Your task to perform on an android device: set default search engine in the chrome app Image 0: 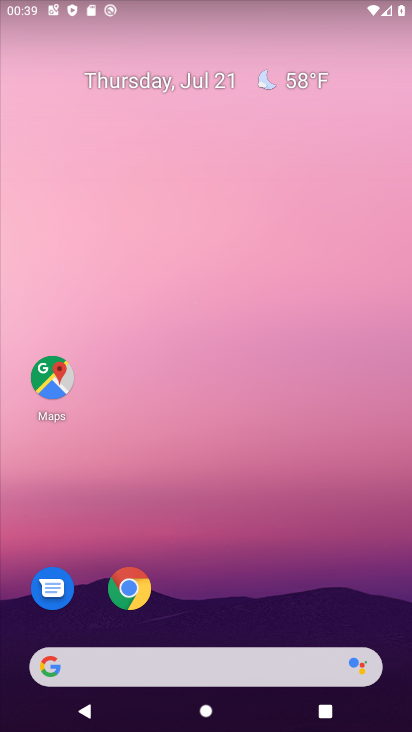
Step 0: drag from (190, 637) to (216, 0)
Your task to perform on an android device: set default search engine in the chrome app Image 1: 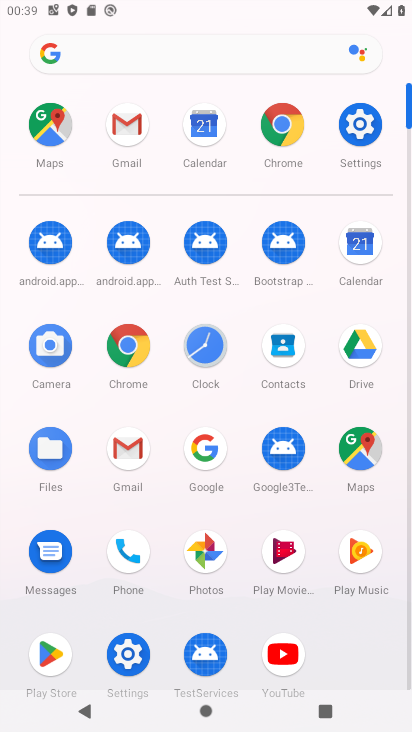
Step 1: click (130, 343)
Your task to perform on an android device: set default search engine in the chrome app Image 2: 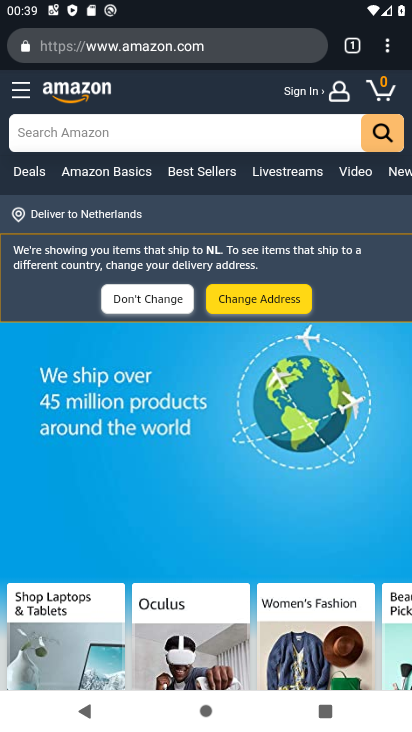
Step 2: click (385, 44)
Your task to perform on an android device: set default search engine in the chrome app Image 3: 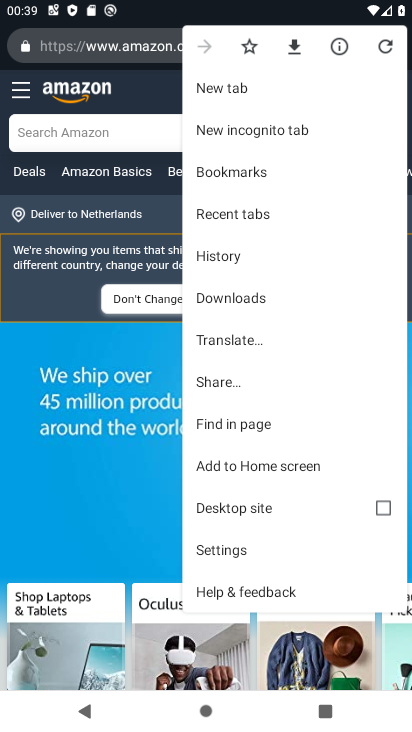
Step 3: click (232, 545)
Your task to perform on an android device: set default search engine in the chrome app Image 4: 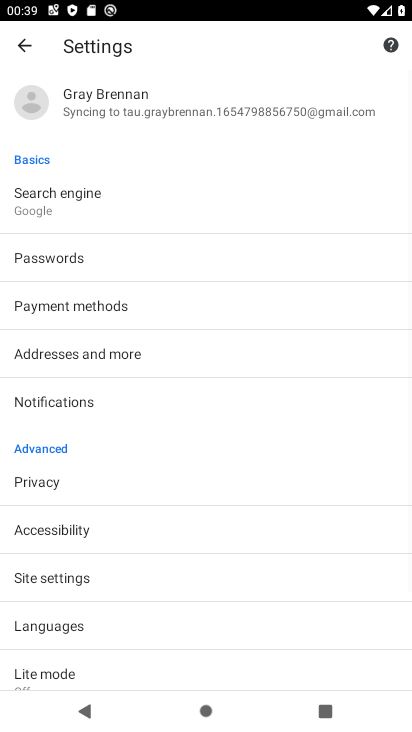
Step 4: click (59, 206)
Your task to perform on an android device: set default search engine in the chrome app Image 5: 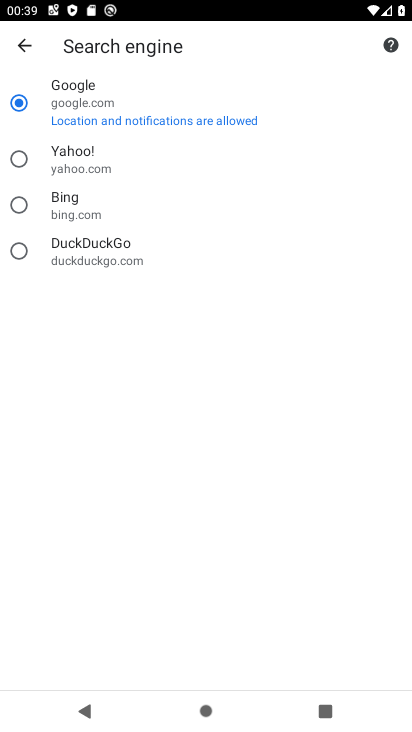
Step 5: task complete